Your task to perform on an android device: Open Chrome and go to the settings page Image 0: 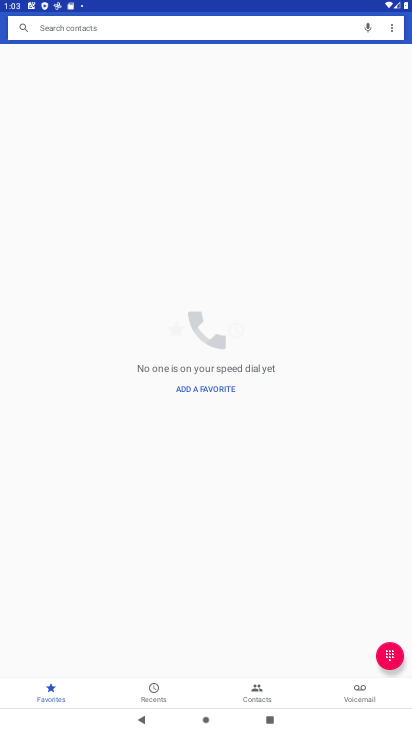
Step 0: press home button
Your task to perform on an android device: Open Chrome and go to the settings page Image 1: 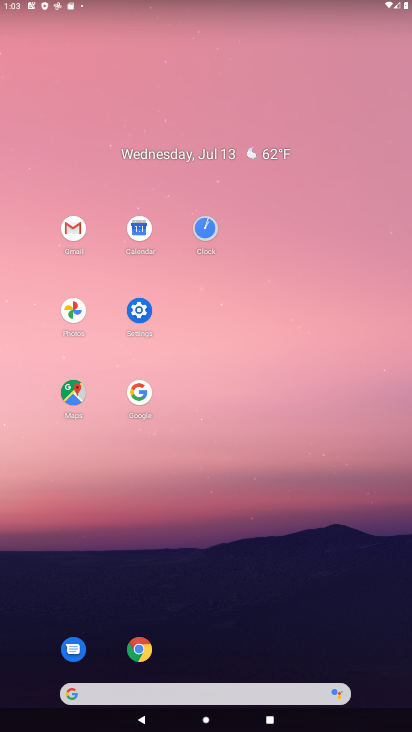
Step 1: click (147, 647)
Your task to perform on an android device: Open Chrome and go to the settings page Image 2: 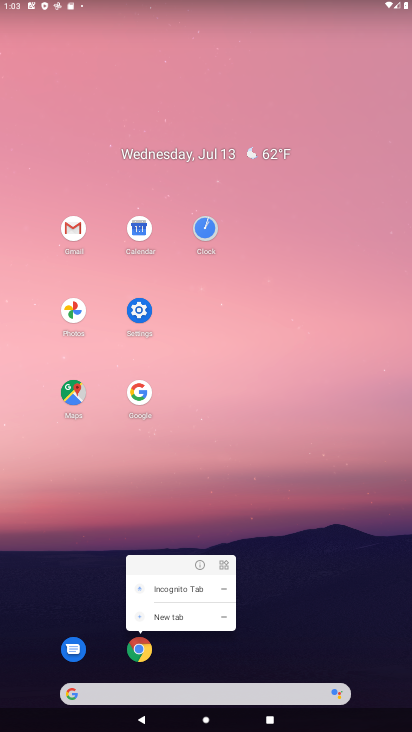
Step 2: click (147, 647)
Your task to perform on an android device: Open Chrome and go to the settings page Image 3: 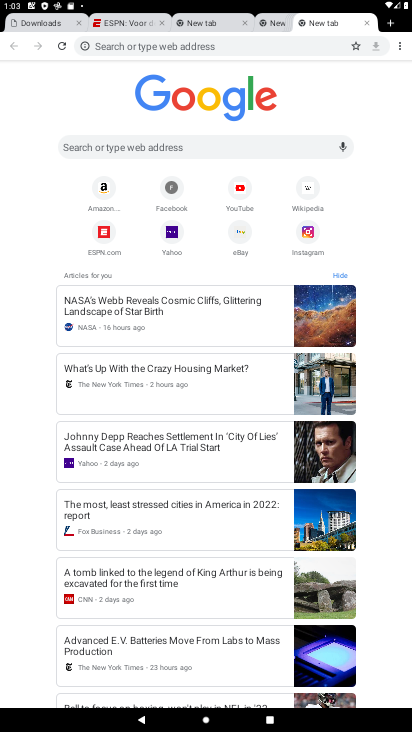
Step 3: click (402, 48)
Your task to perform on an android device: Open Chrome and go to the settings page Image 4: 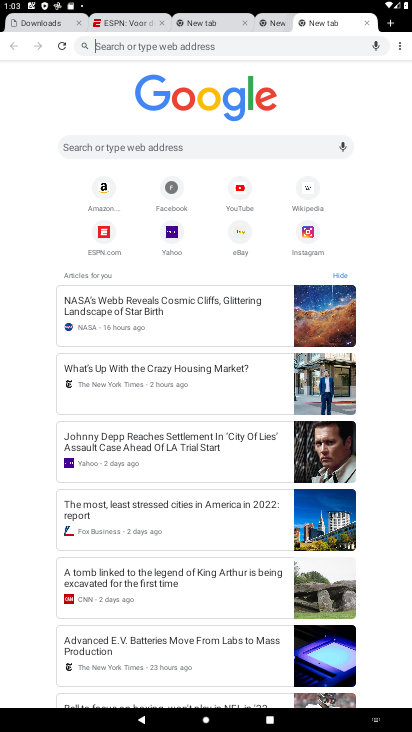
Step 4: click (399, 50)
Your task to perform on an android device: Open Chrome and go to the settings page Image 5: 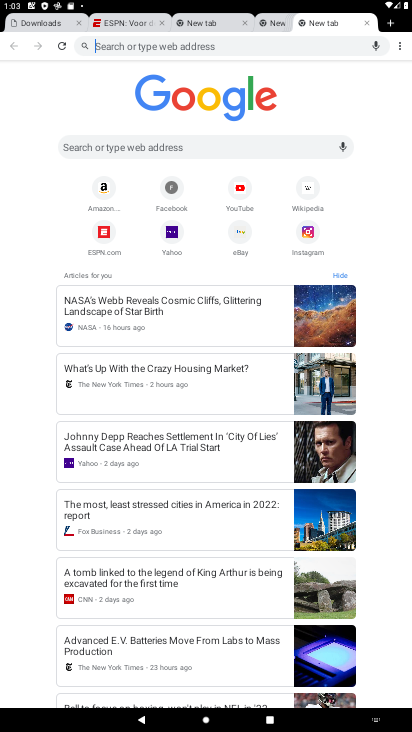
Step 5: click (407, 44)
Your task to perform on an android device: Open Chrome and go to the settings page Image 6: 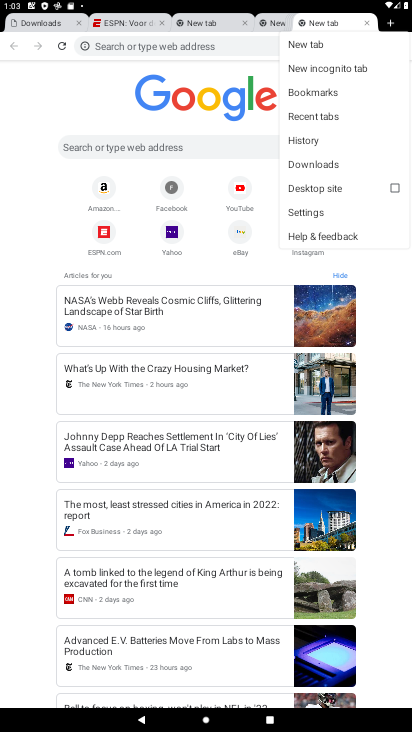
Step 6: click (323, 214)
Your task to perform on an android device: Open Chrome and go to the settings page Image 7: 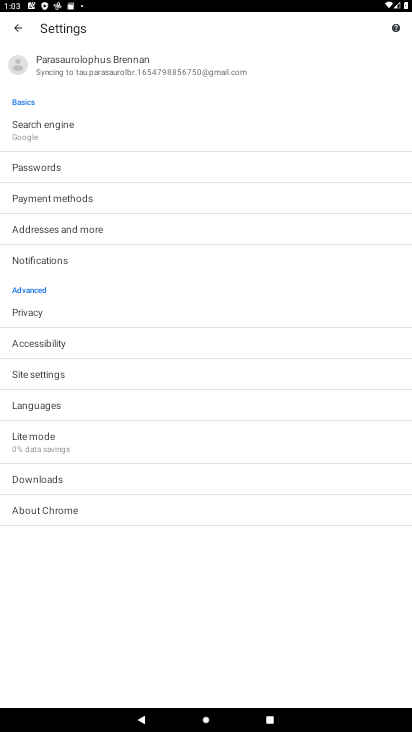
Step 7: task complete